Your task to perform on an android device: Go to Maps Image 0: 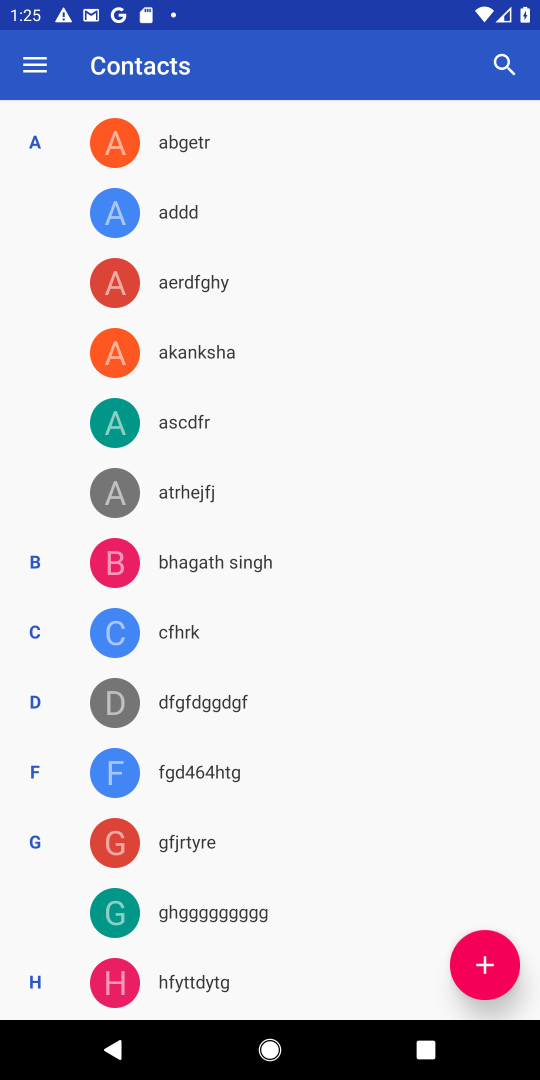
Step 0: press home button
Your task to perform on an android device: Go to Maps Image 1: 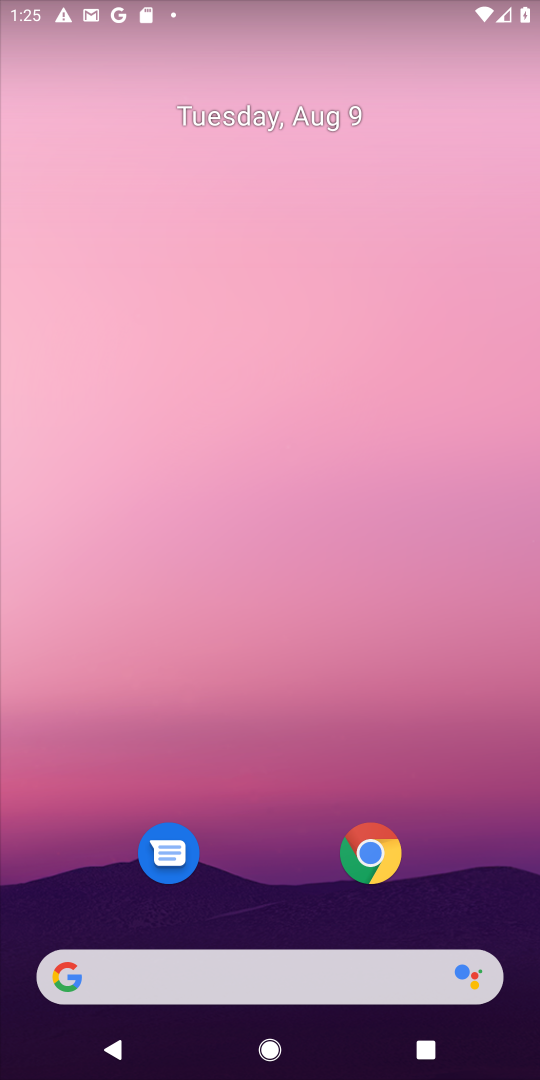
Step 1: drag from (304, 895) to (277, 185)
Your task to perform on an android device: Go to Maps Image 2: 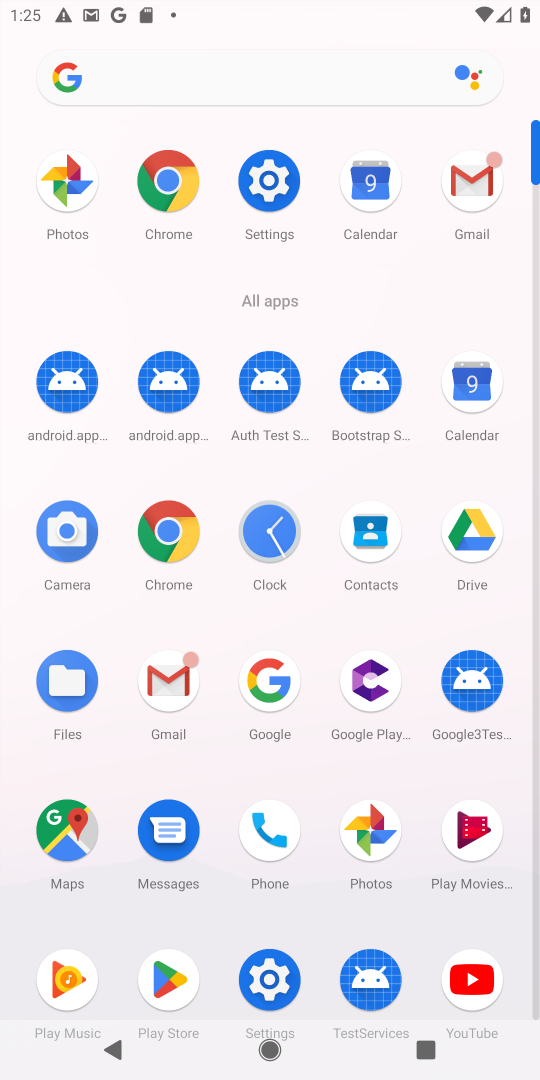
Step 2: click (63, 822)
Your task to perform on an android device: Go to Maps Image 3: 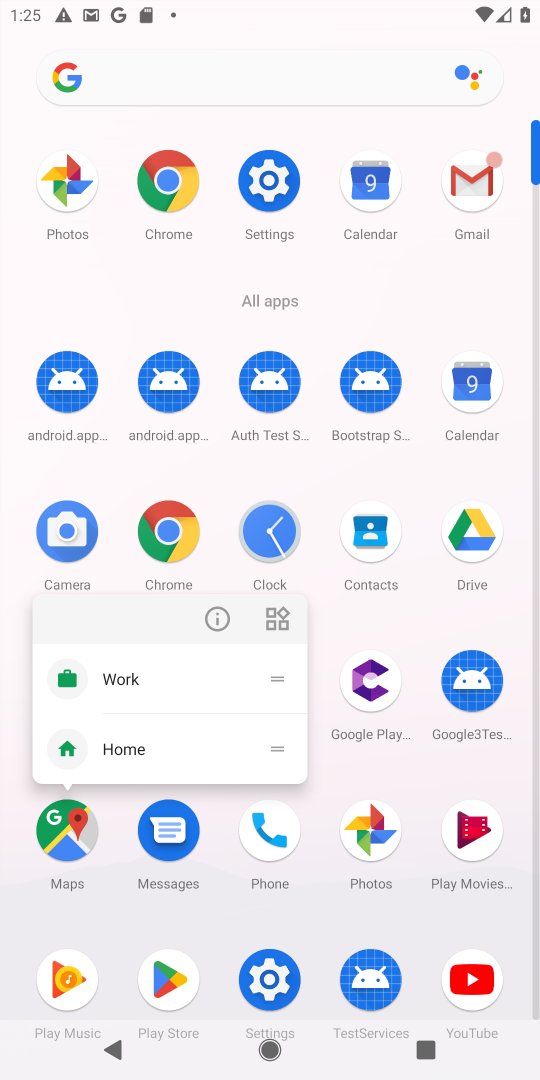
Step 3: click (68, 826)
Your task to perform on an android device: Go to Maps Image 4: 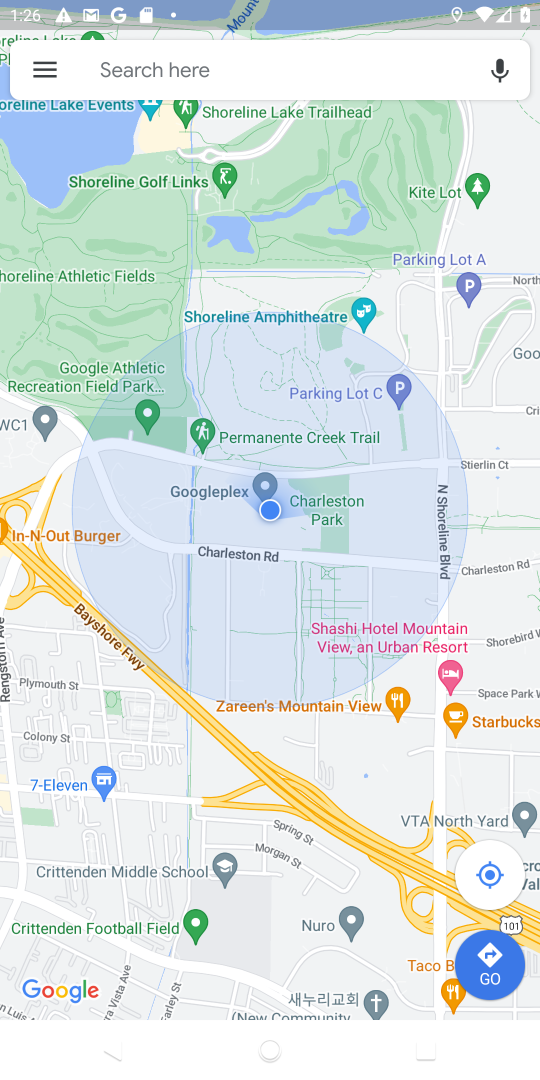
Step 4: task complete